Your task to perform on an android device: change timer sound Image 0: 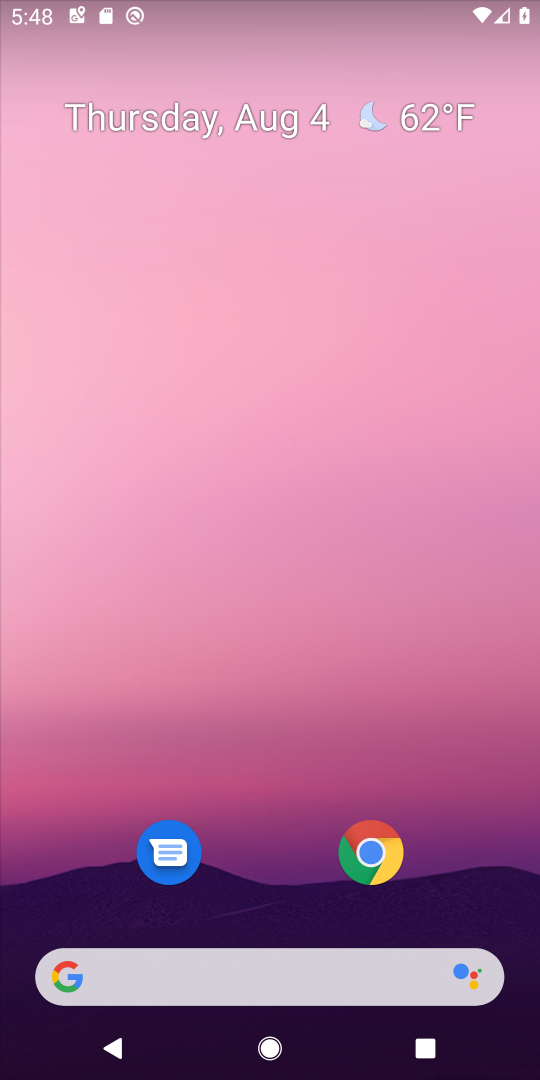
Step 0: drag from (312, 845) to (282, 249)
Your task to perform on an android device: change timer sound Image 1: 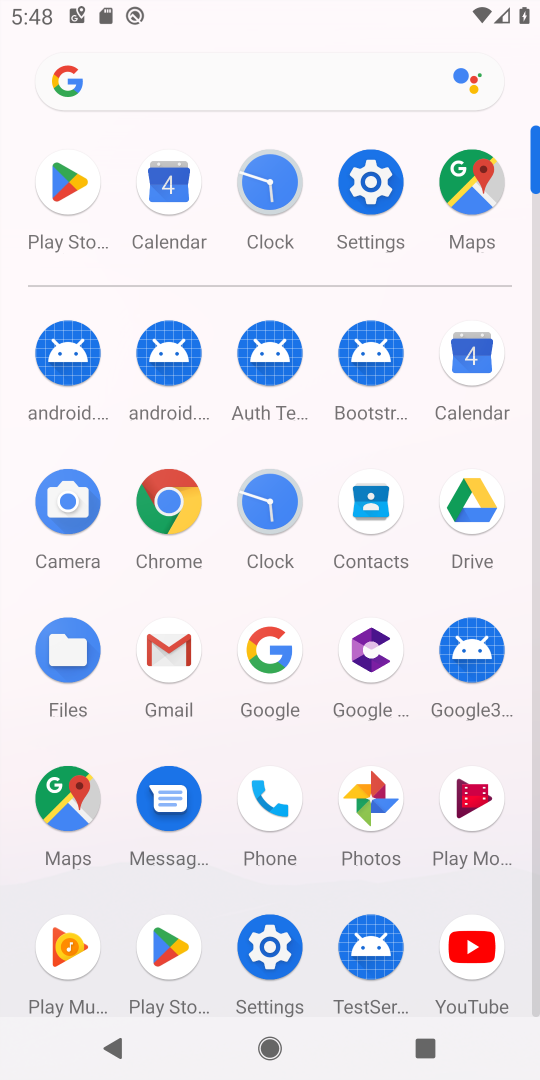
Step 1: click (273, 523)
Your task to perform on an android device: change timer sound Image 2: 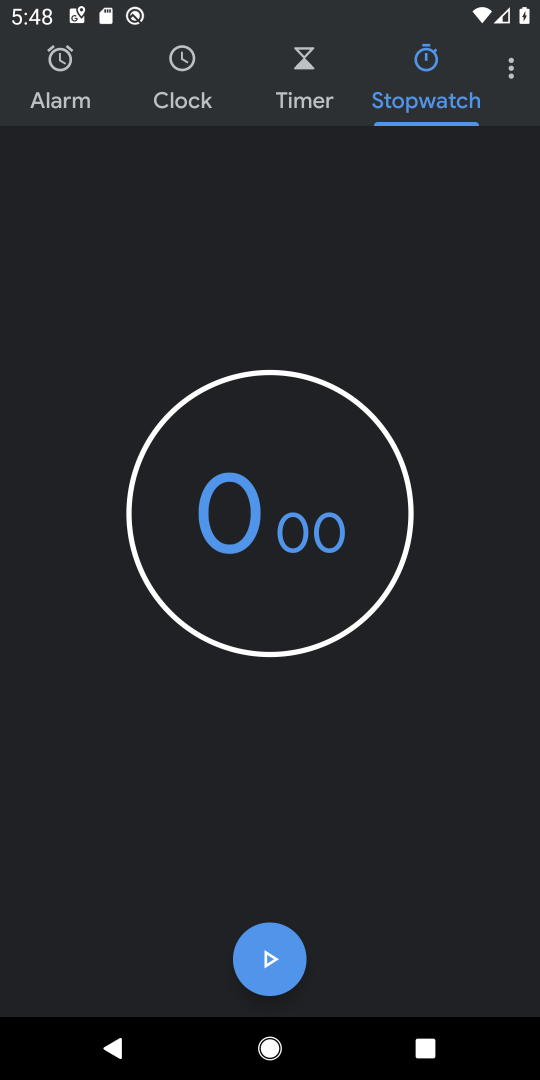
Step 2: click (515, 78)
Your task to perform on an android device: change timer sound Image 3: 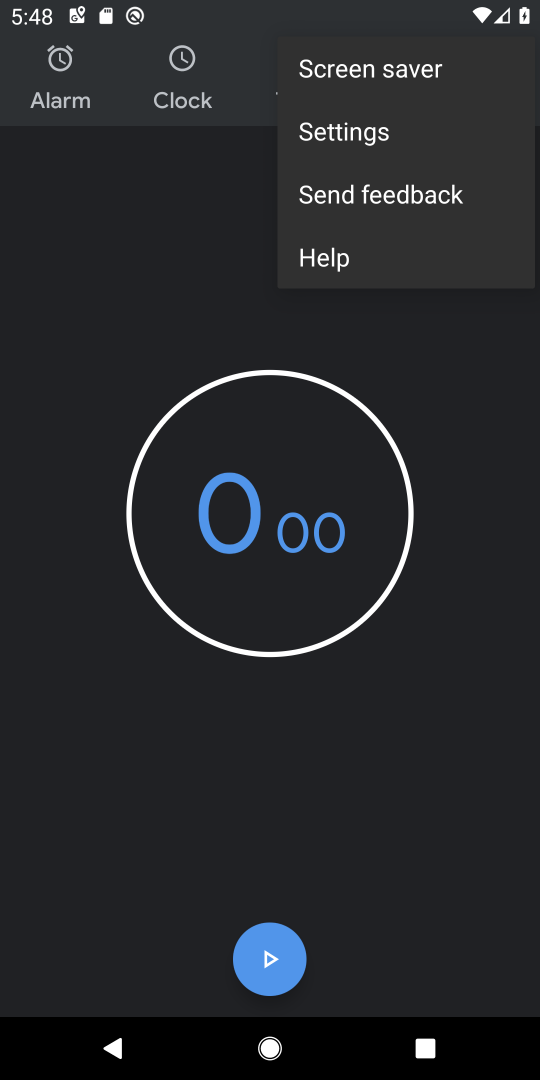
Step 3: click (345, 138)
Your task to perform on an android device: change timer sound Image 4: 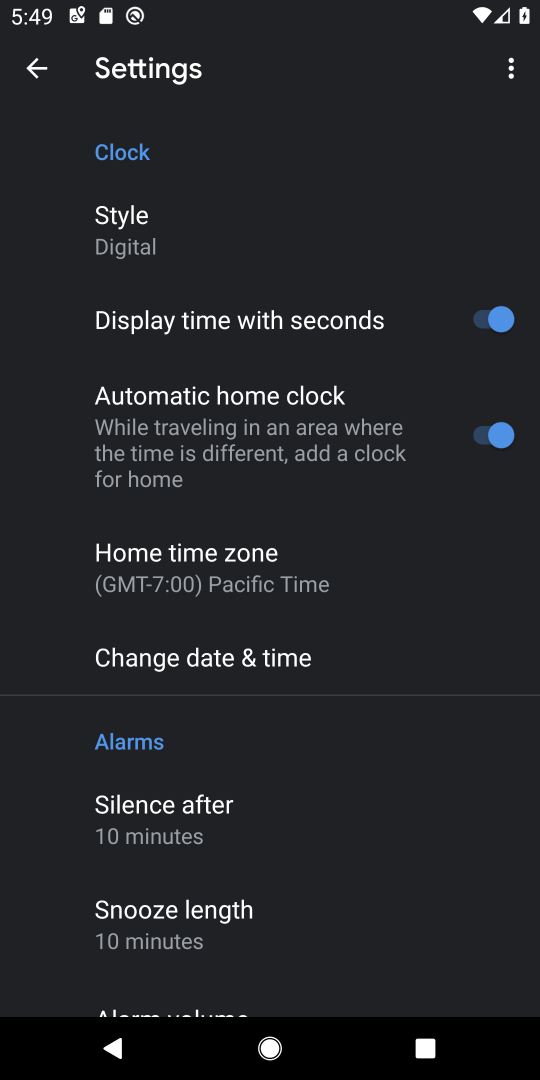
Step 4: drag from (217, 854) to (196, 604)
Your task to perform on an android device: change timer sound Image 5: 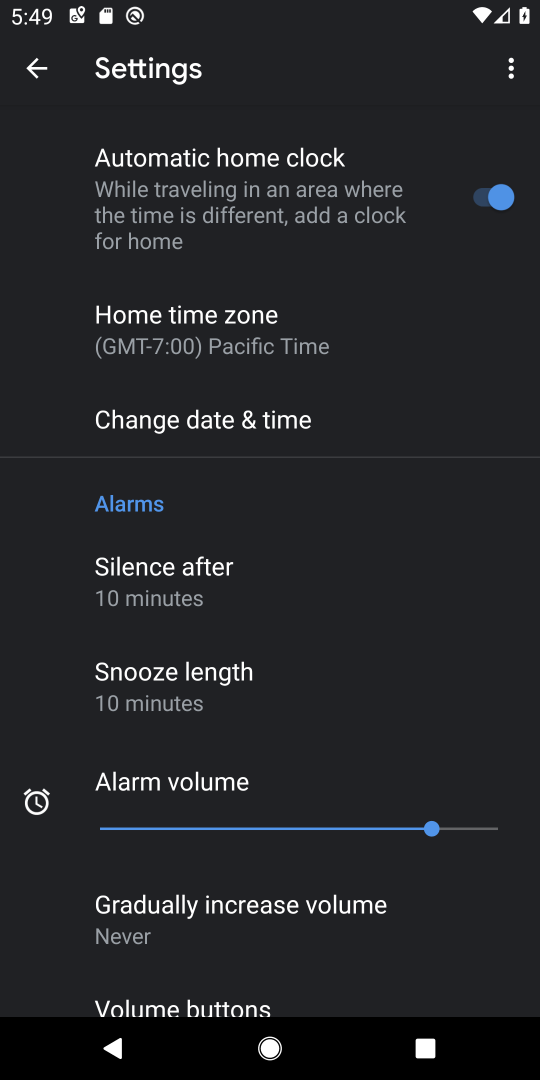
Step 5: drag from (234, 940) to (203, 444)
Your task to perform on an android device: change timer sound Image 6: 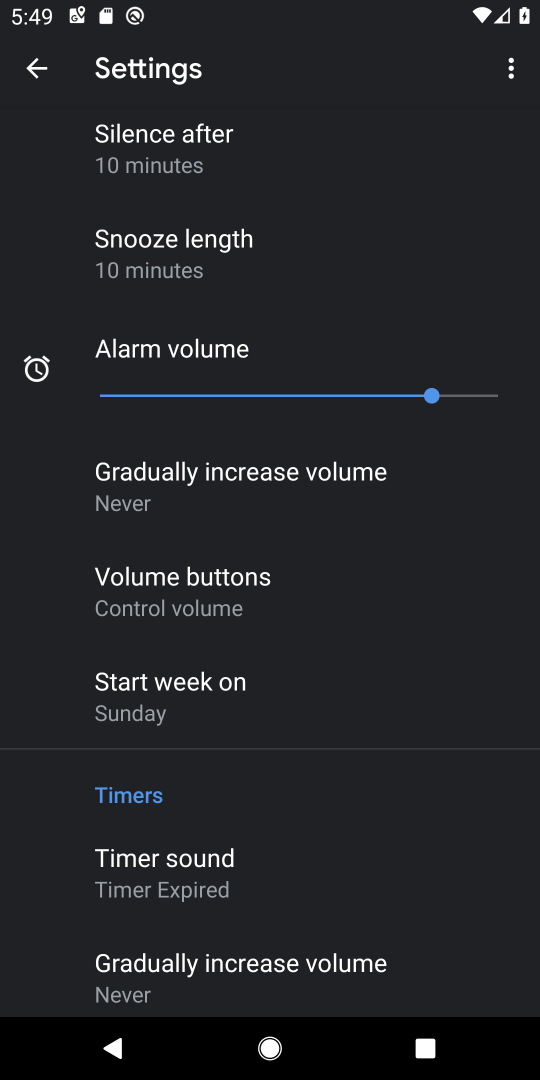
Step 6: click (175, 870)
Your task to perform on an android device: change timer sound Image 7: 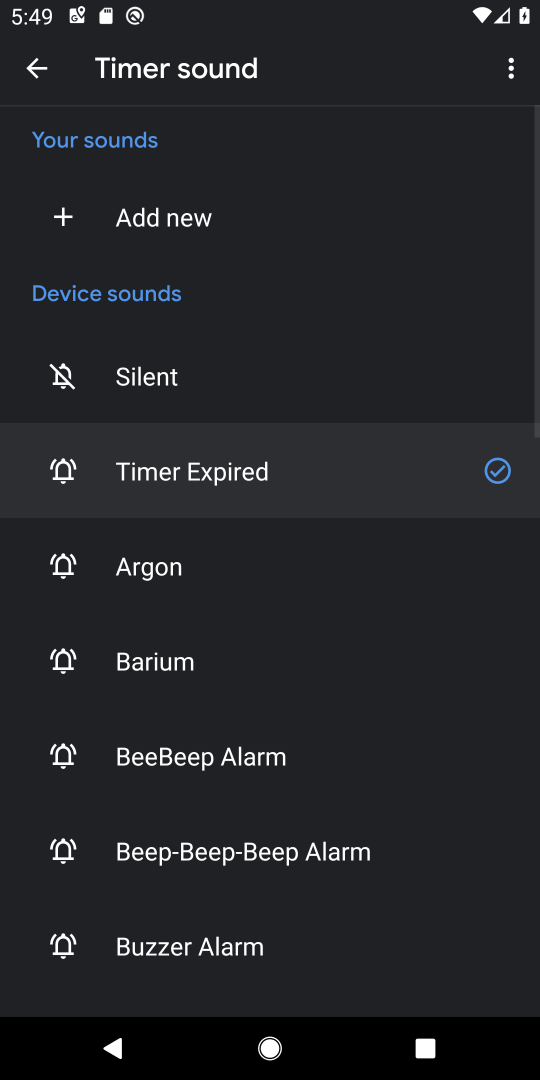
Step 7: click (142, 854)
Your task to perform on an android device: change timer sound Image 8: 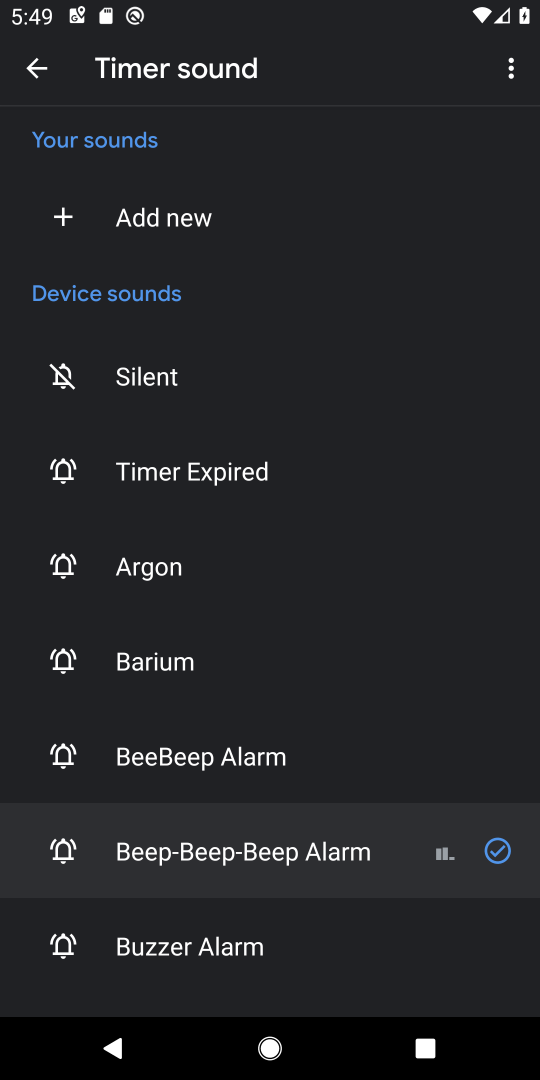
Step 8: task complete